Your task to perform on an android device: Open Google Chrome and open the bookmarks view Image 0: 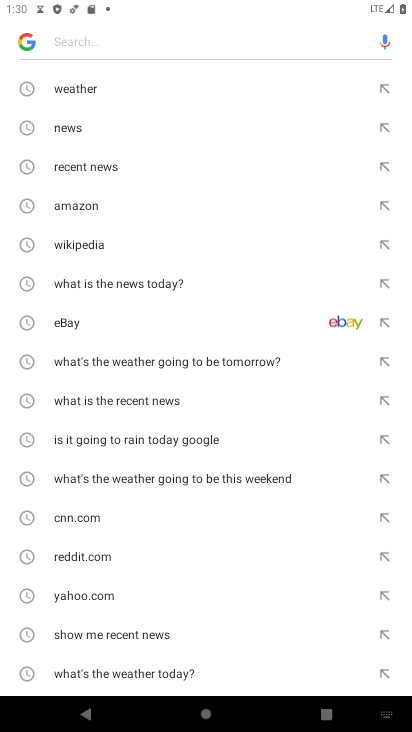
Step 0: drag from (185, 634) to (411, 583)
Your task to perform on an android device: Open Google Chrome and open the bookmarks view Image 1: 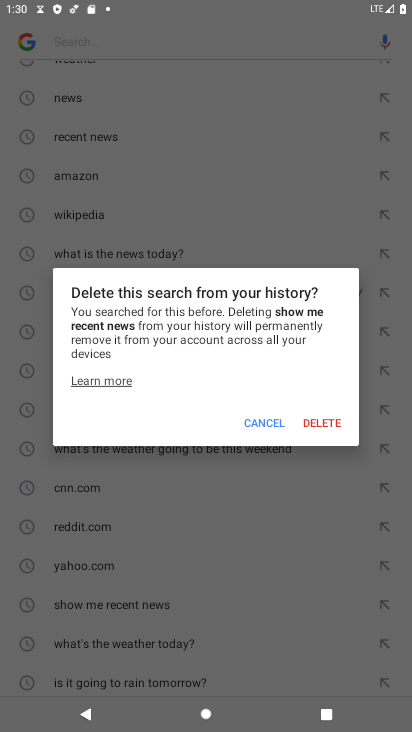
Step 1: press home button
Your task to perform on an android device: Open Google Chrome and open the bookmarks view Image 2: 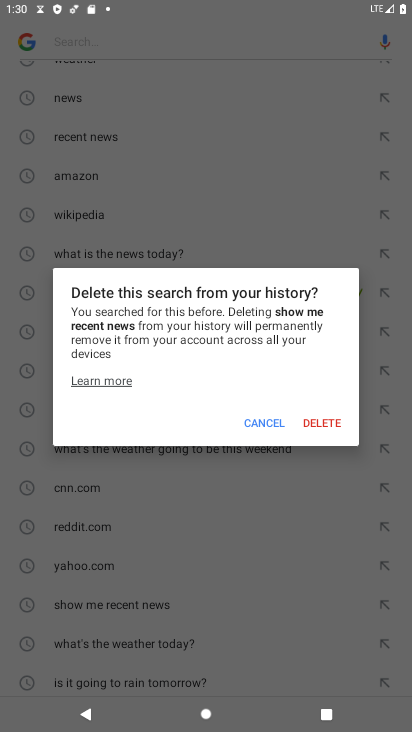
Step 2: drag from (411, 583) to (391, 507)
Your task to perform on an android device: Open Google Chrome and open the bookmarks view Image 3: 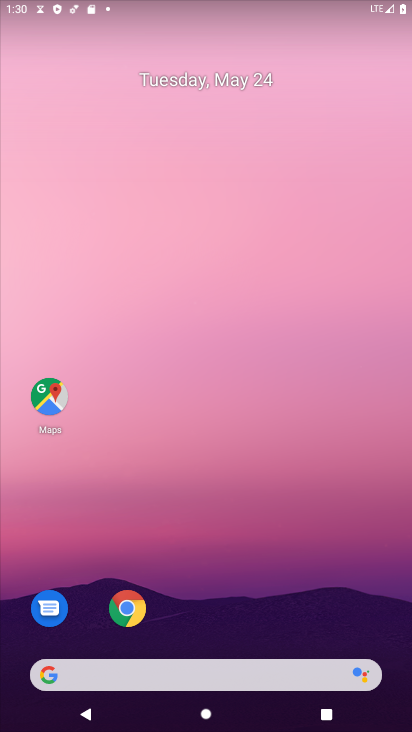
Step 3: drag from (214, 643) to (266, 263)
Your task to perform on an android device: Open Google Chrome and open the bookmarks view Image 4: 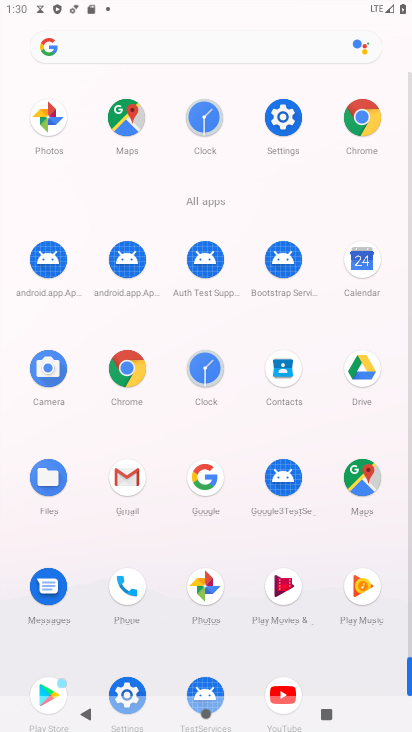
Step 4: click (367, 139)
Your task to perform on an android device: Open Google Chrome and open the bookmarks view Image 5: 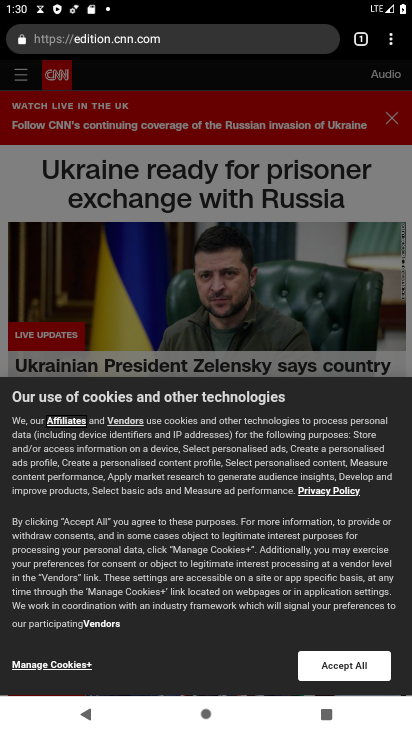
Step 5: click (394, 54)
Your task to perform on an android device: Open Google Chrome and open the bookmarks view Image 6: 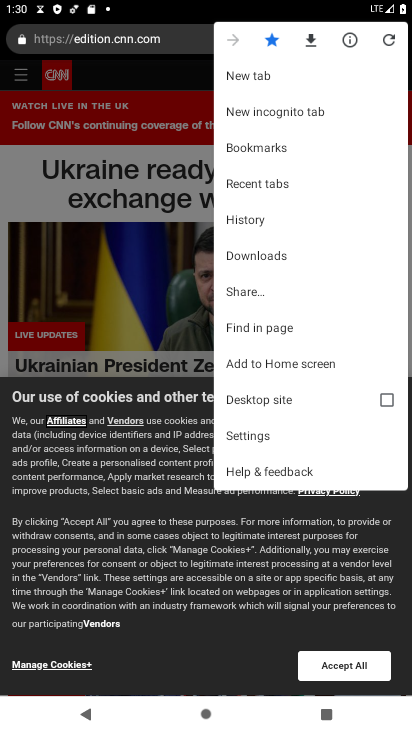
Step 6: click (293, 155)
Your task to perform on an android device: Open Google Chrome and open the bookmarks view Image 7: 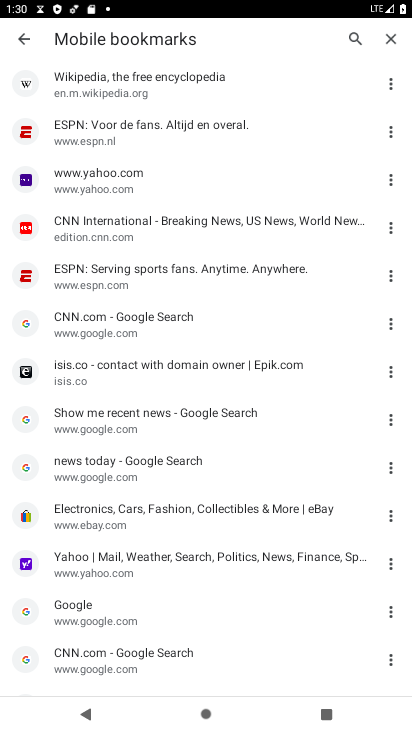
Step 7: task complete